Your task to perform on an android device: Open Youtube and go to the subscriptions tab Image 0: 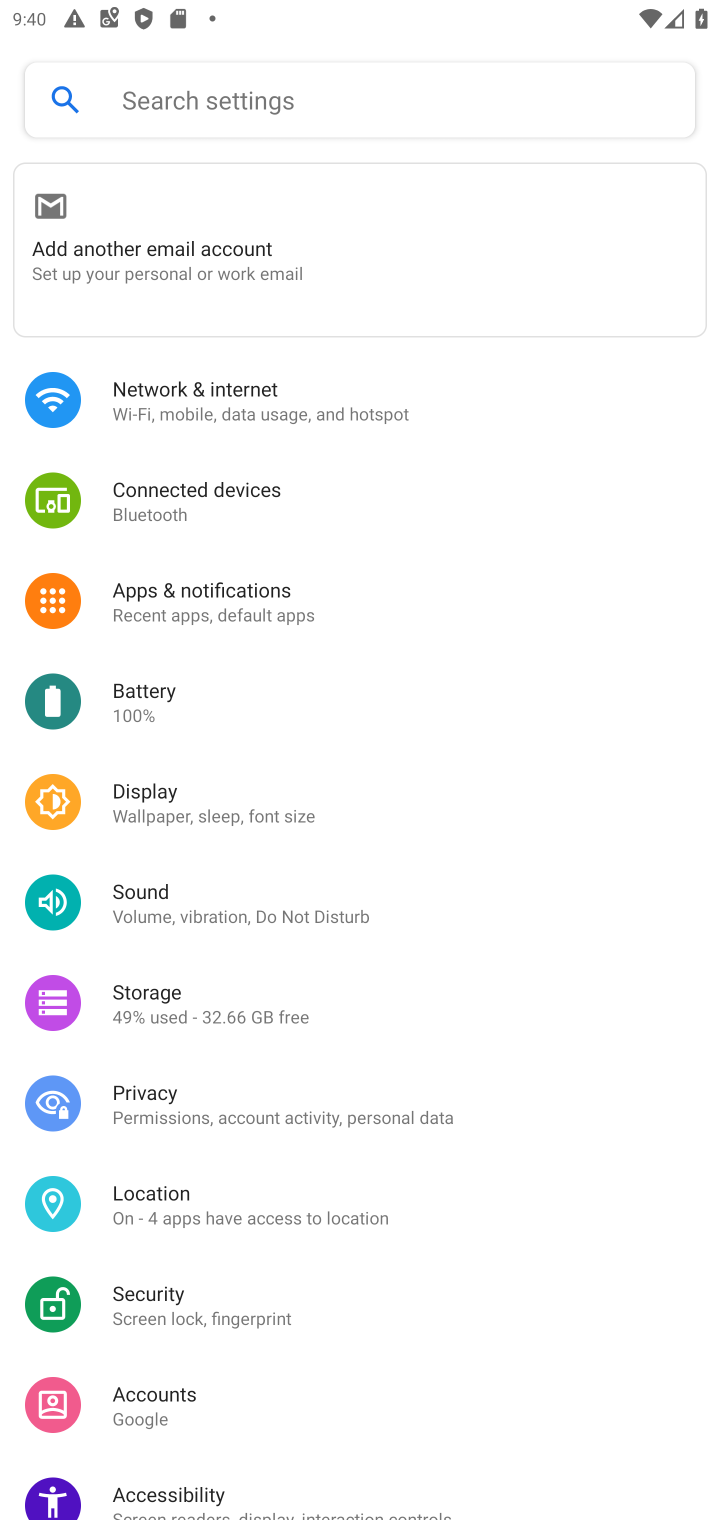
Step 0: press home button
Your task to perform on an android device: Open Youtube and go to the subscriptions tab Image 1: 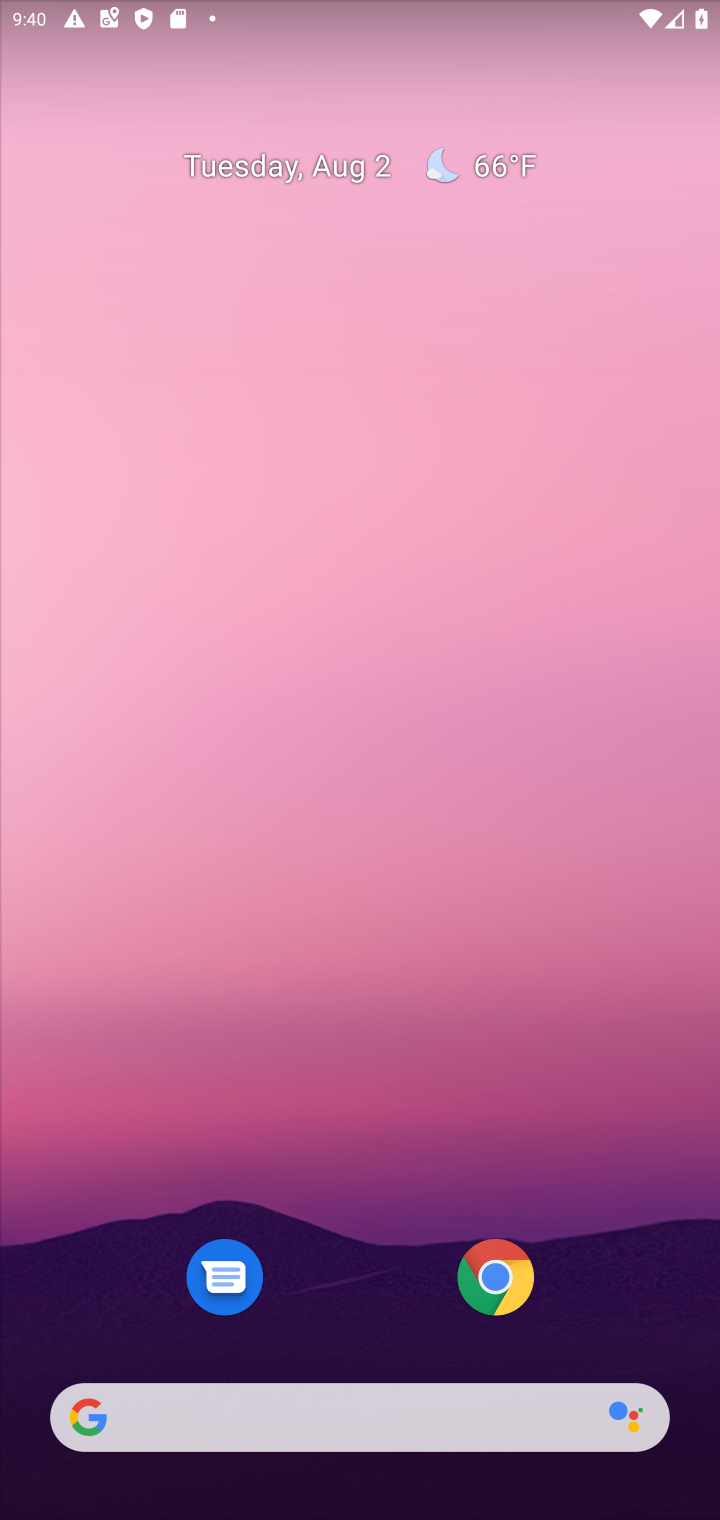
Step 1: drag from (358, 1026) to (364, 218)
Your task to perform on an android device: Open Youtube and go to the subscriptions tab Image 2: 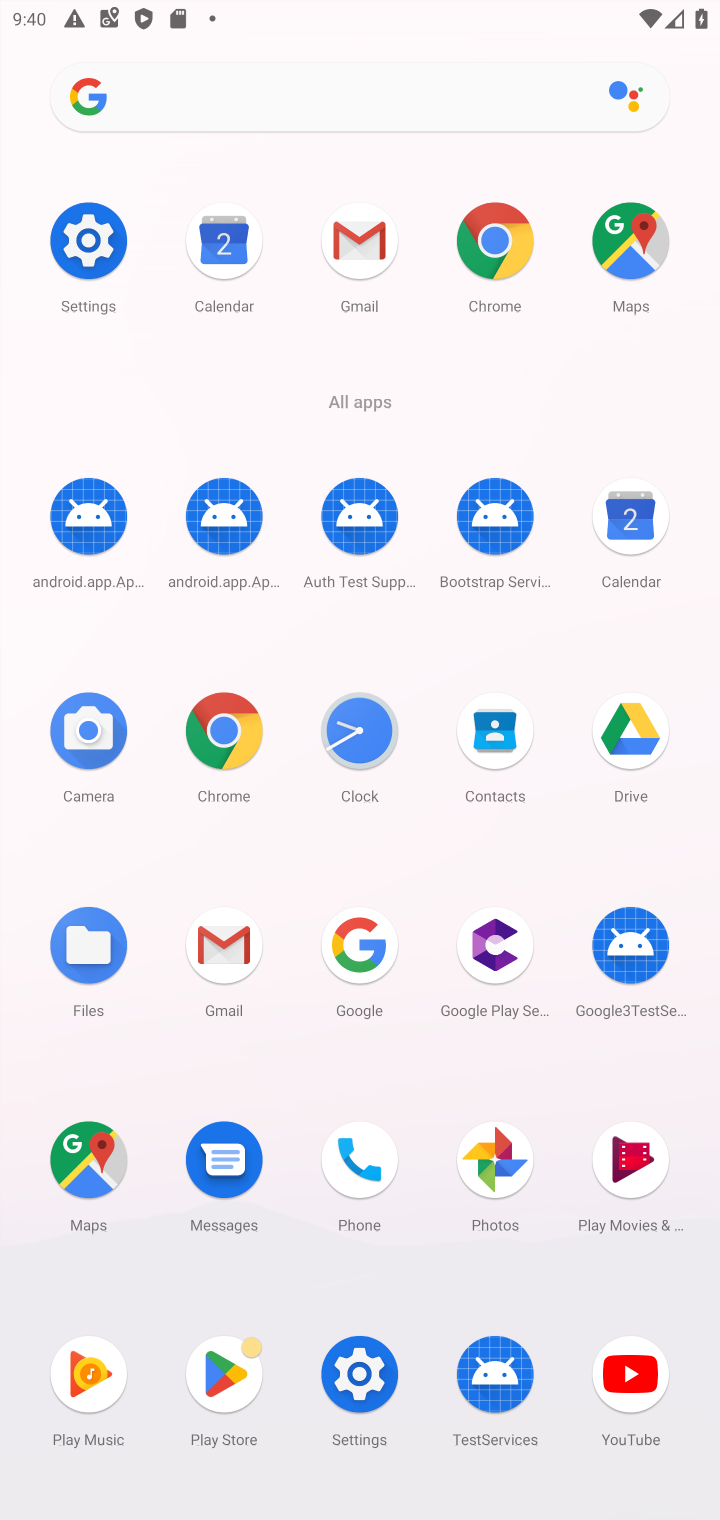
Step 2: click (618, 1375)
Your task to perform on an android device: Open Youtube and go to the subscriptions tab Image 3: 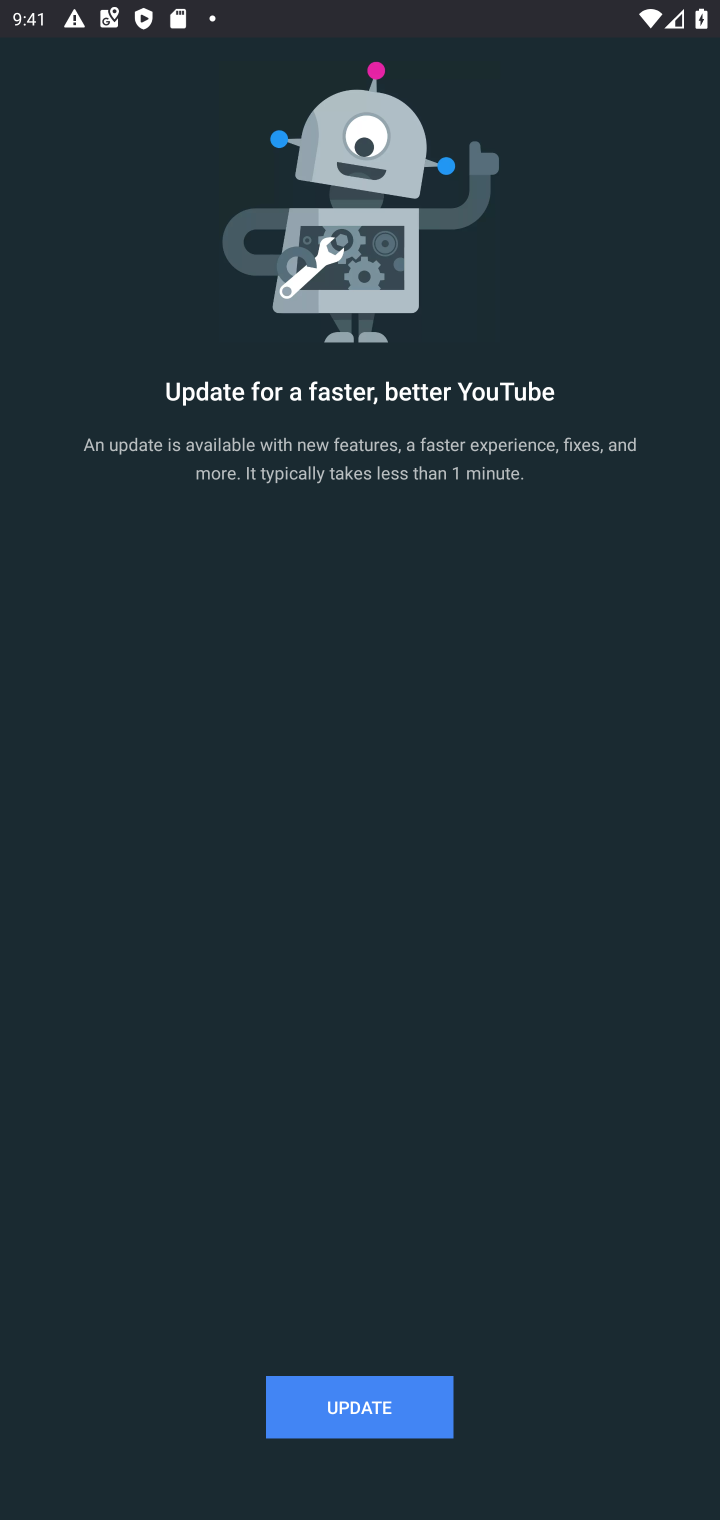
Step 3: task complete